Your task to perform on an android device: toggle airplane mode Image 0: 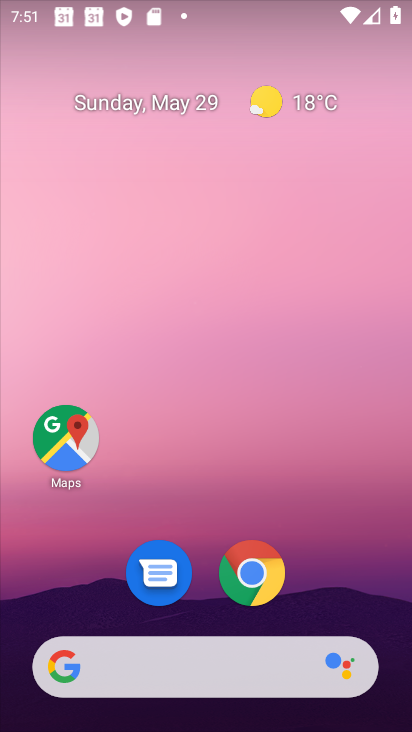
Step 0: drag from (38, 610) to (304, 153)
Your task to perform on an android device: toggle airplane mode Image 1: 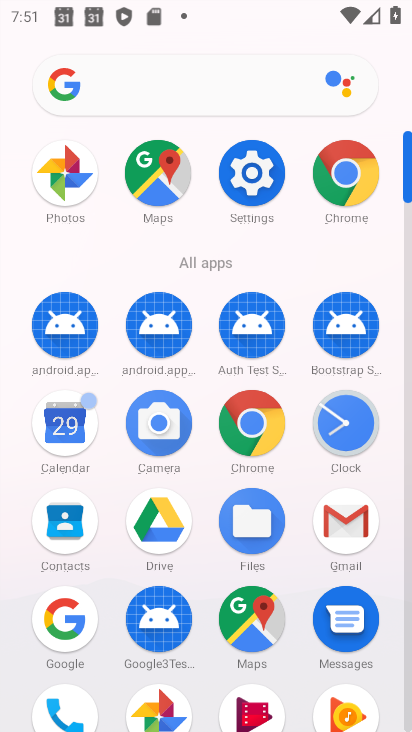
Step 1: drag from (165, 639) to (241, 298)
Your task to perform on an android device: toggle airplane mode Image 2: 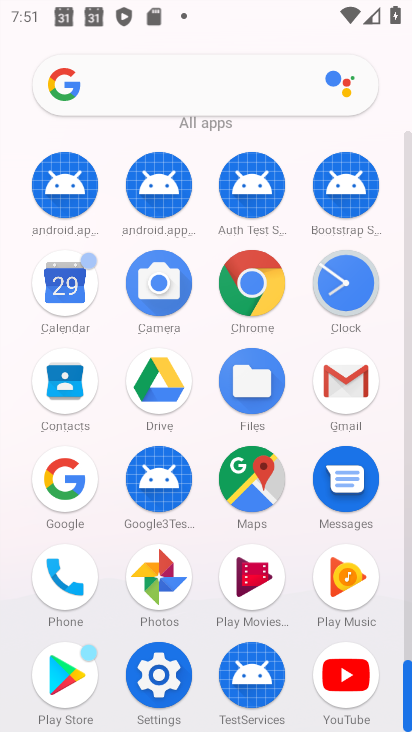
Step 2: click (166, 668)
Your task to perform on an android device: toggle airplane mode Image 3: 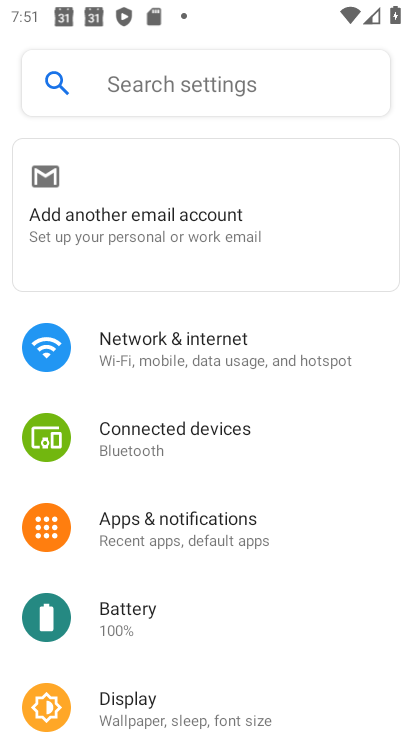
Step 3: click (268, 379)
Your task to perform on an android device: toggle airplane mode Image 4: 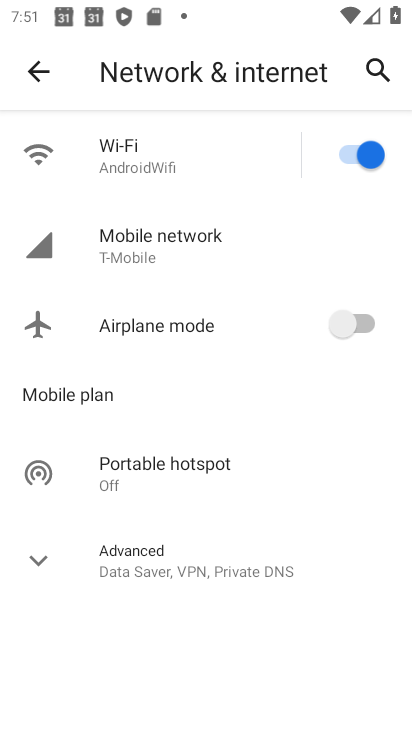
Step 4: click (380, 322)
Your task to perform on an android device: toggle airplane mode Image 5: 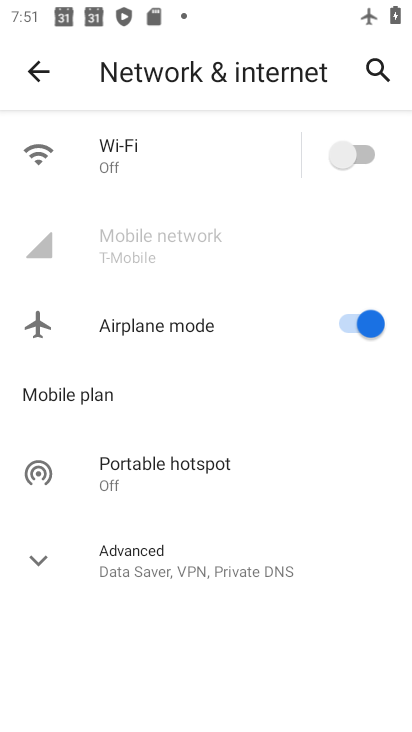
Step 5: task complete